Your task to perform on an android device: create a new album in the google photos Image 0: 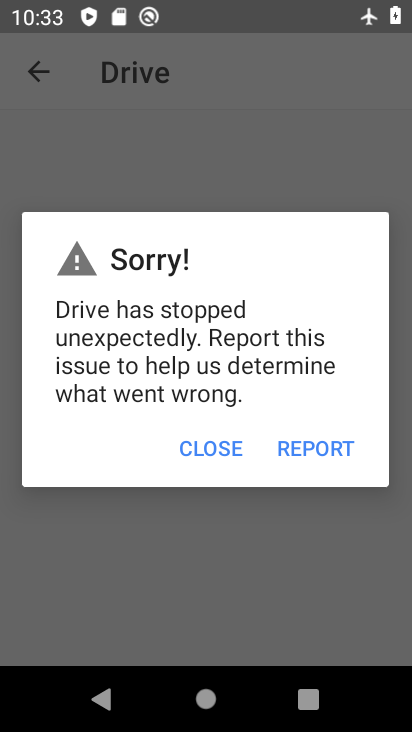
Step 0: press home button
Your task to perform on an android device: create a new album in the google photos Image 1: 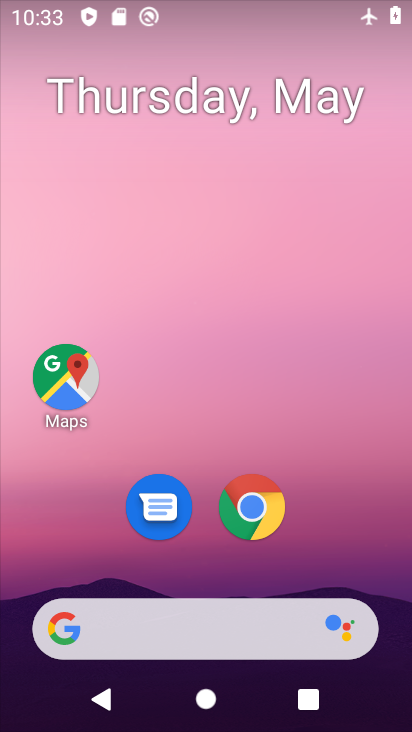
Step 1: drag from (247, 617) to (259, 218)
Your task to perform on an android device: create a new album in the google photos Image 2: 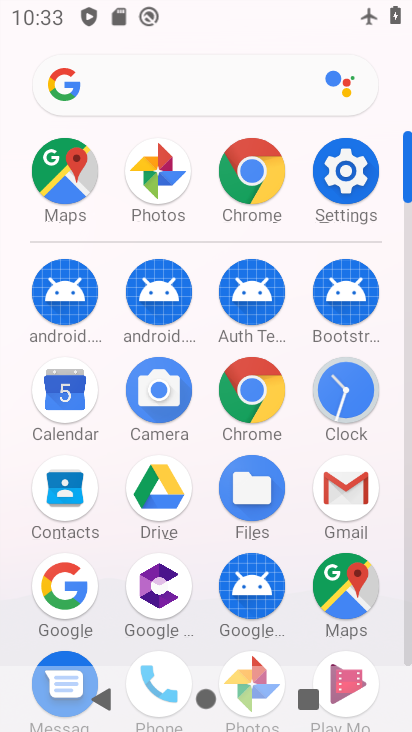
Step 2: drag from (252, 431) to (306, 179)
Your task to perform on an android device: create a new album in the google photos Image 3: 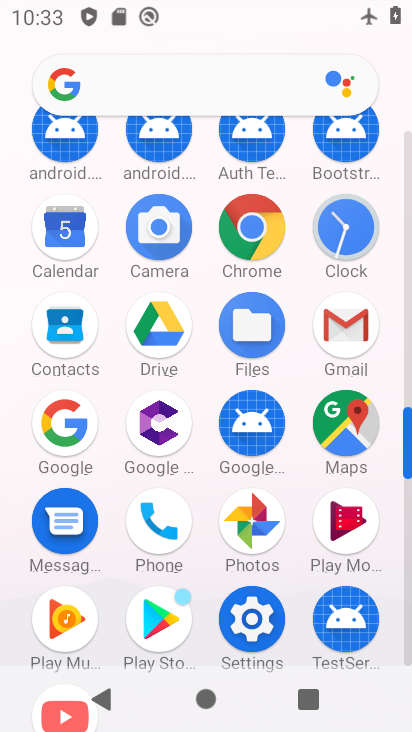
Step 3: click (254, 534)
Your task to perform on an android device: create a new album in the google photos Image 4: 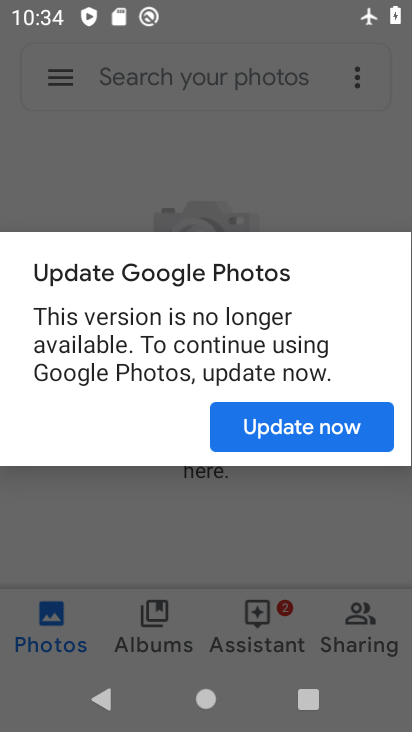
Step 4: task complete